Your task to perform on an android device: What's the weather? Image 0: 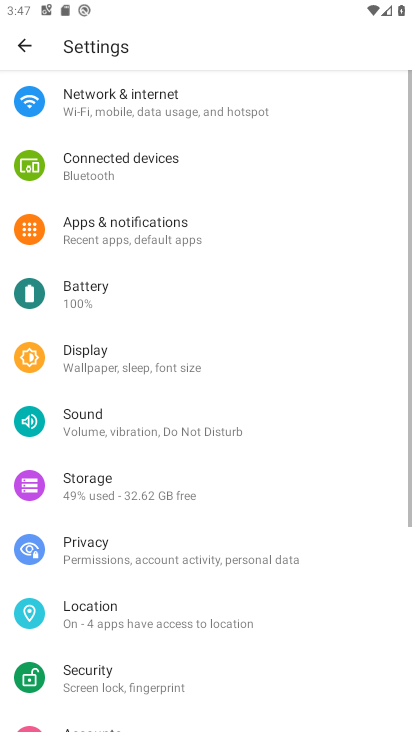
Step 0: press home button
Your task to perform on an android device: What's the weather? Image 1: 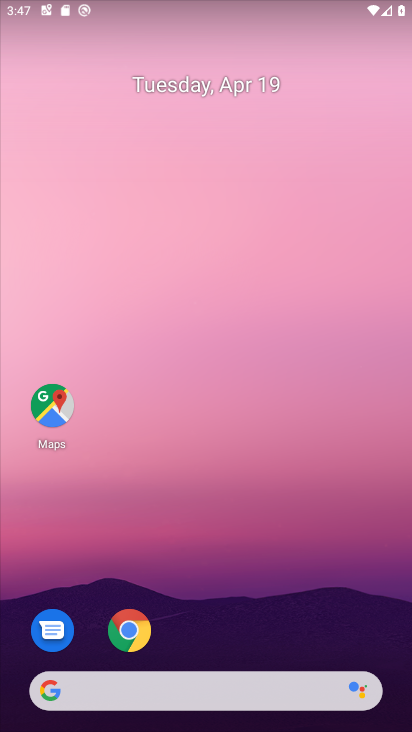
Step 1: click (171, 686)
Your task to perform on an android device: What's the weather? Image 2: 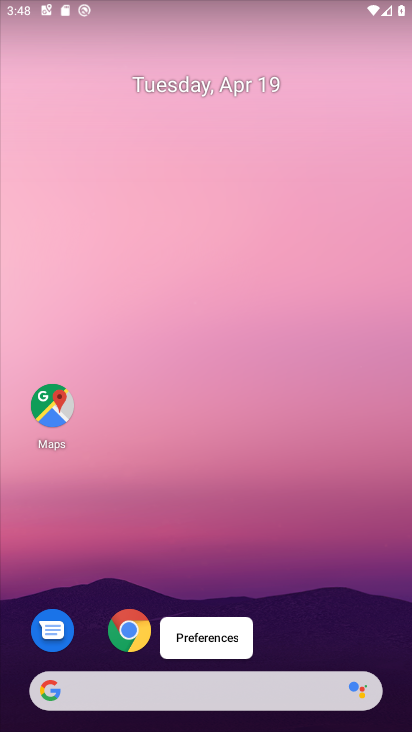
Step 2: click (131, 637)
Your task to perform on an android device: What's the weather? Image 3: 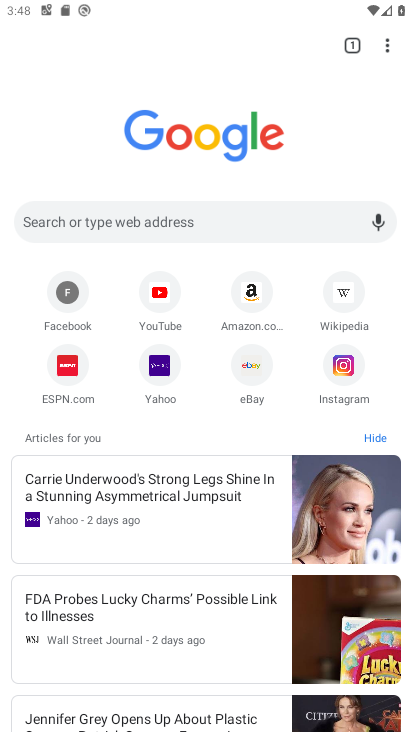
Step 3: click (181, 220)
Your task to perform on an android device: What's the weather? Image 4: 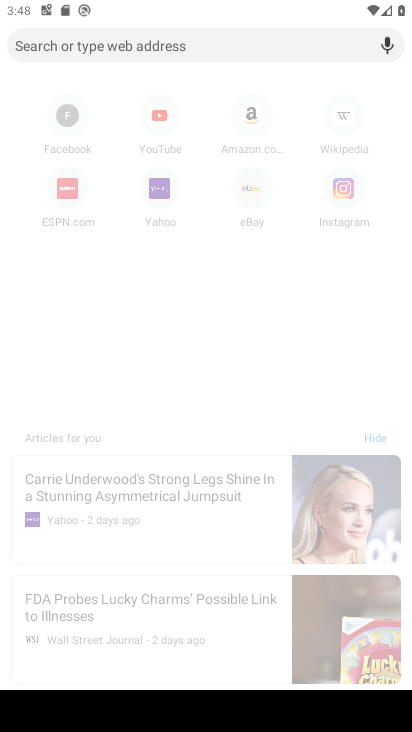
Step 4: type "what's the weather"
Your task to perform on an android device: What's the weather? Image 5: 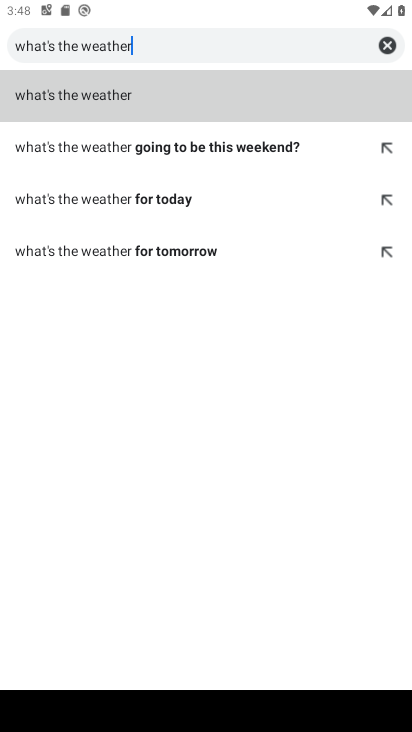
Step 5: click (76, 91)
Your task to perform on an android device: What's the weather? Image 6: 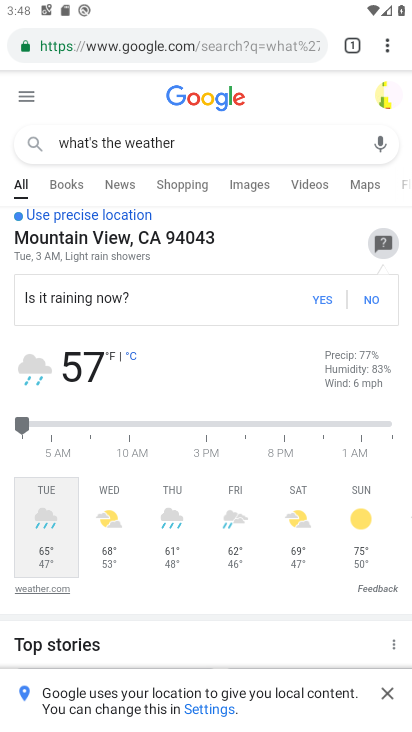
Step 6: task complete